Your task to perform on an android device: What's on my calendar today? Image 0: 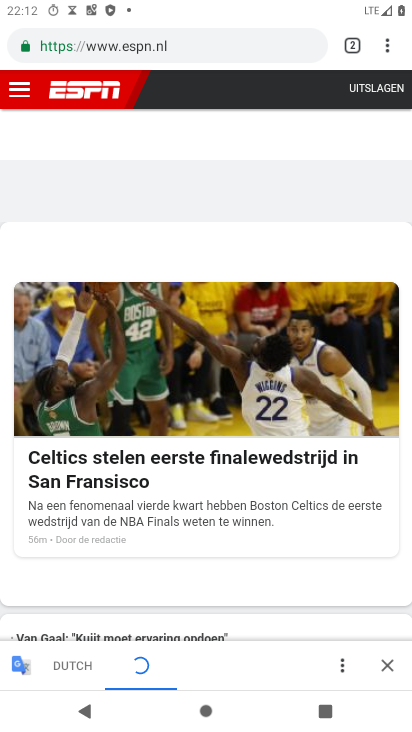
Step 0: press back button
Your task to perform on an android device: What's on my calendar today? Image 1: 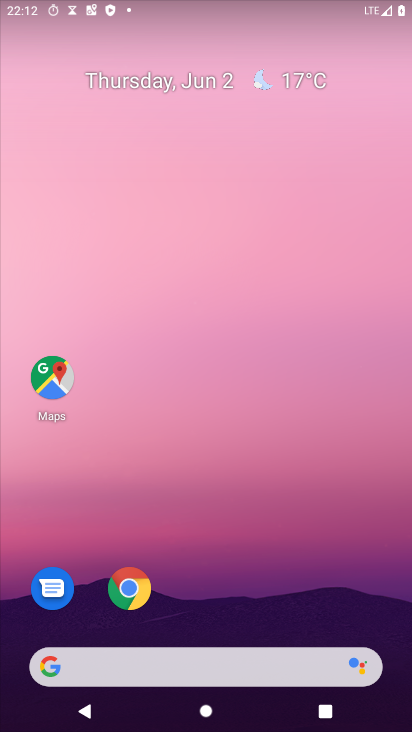
Step 1: drag from (253, 593) to (303, 36)
Your task to perform on an android device: What's on my calendar today? Image 2: 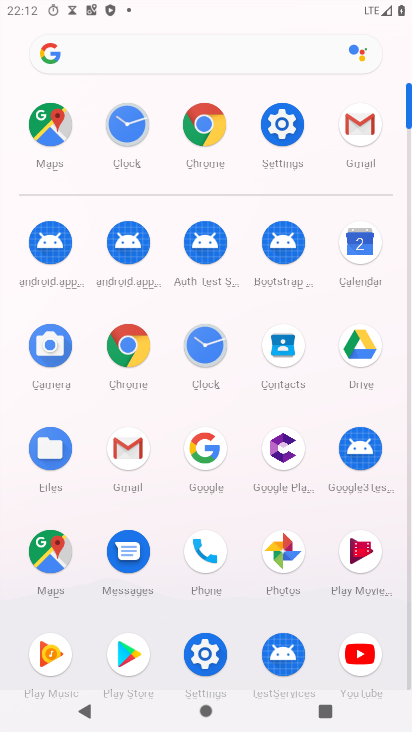
Step 2: click (347, 246)
Your task to perform on an android device: What's on my calendar today? Image 3: 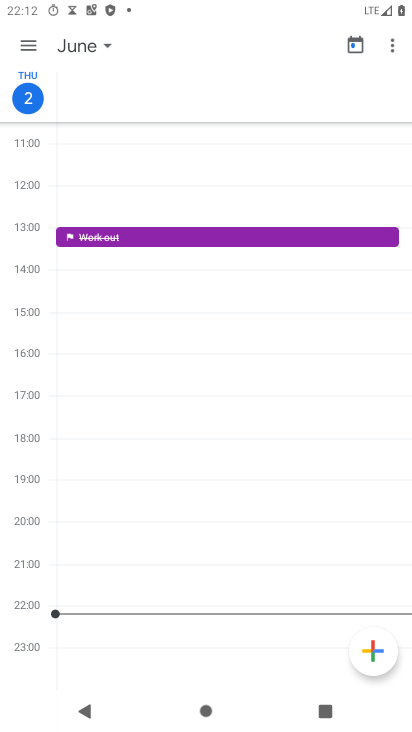
Step 3: click (32, 42)
Your task to perform on an android device: What's on my calendar today? Image 4: 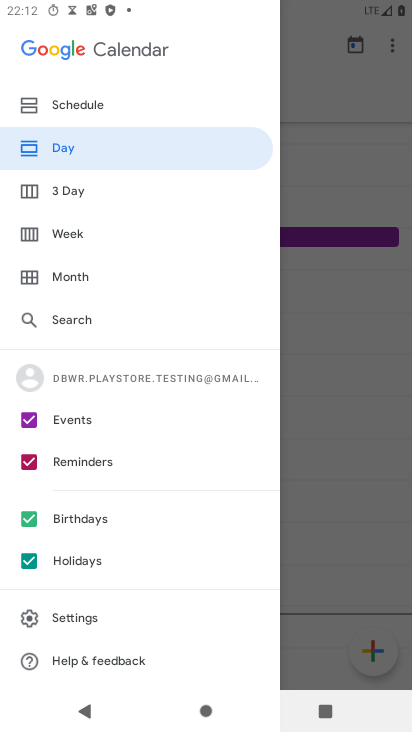
Step 4: click (135, 105)
Your task to perform on an android device: What's on my calendar today? Image 5: 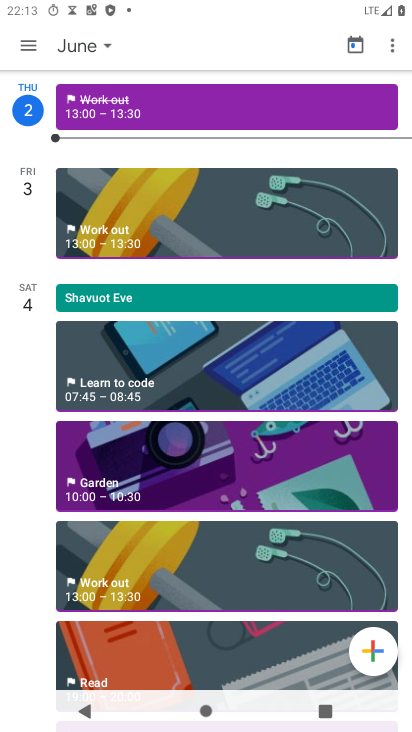
Step 5: click (107, 221)
Your task to perform on an android device: What's on my calendar today? Image 6: 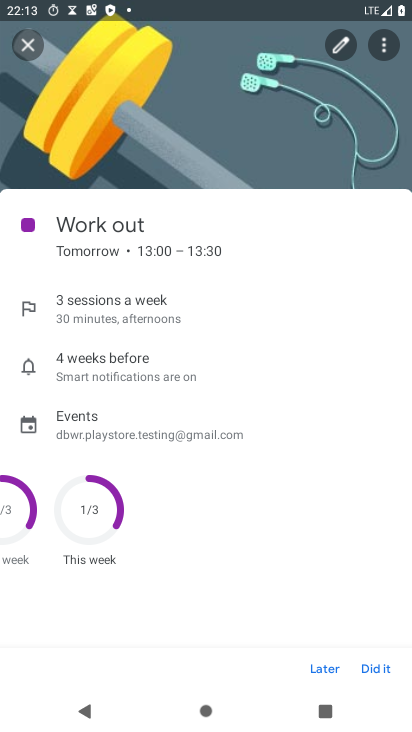
Step 6: press back button
Your task to perform on an android device: What's on my calendar today? Image 7: 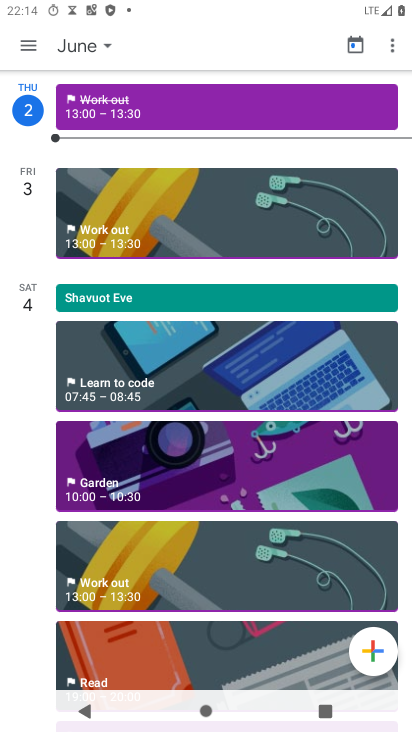
Step 7: click (141, 226)
Your task to perform on an android device: What's on my calendar today? Image 8: 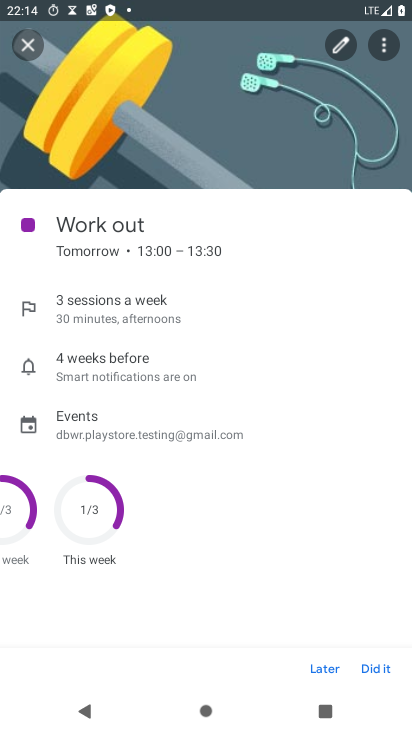
Step 8: task complete